Your task to perform on an android device: toggle notifications settings in the gmail app Image 0: 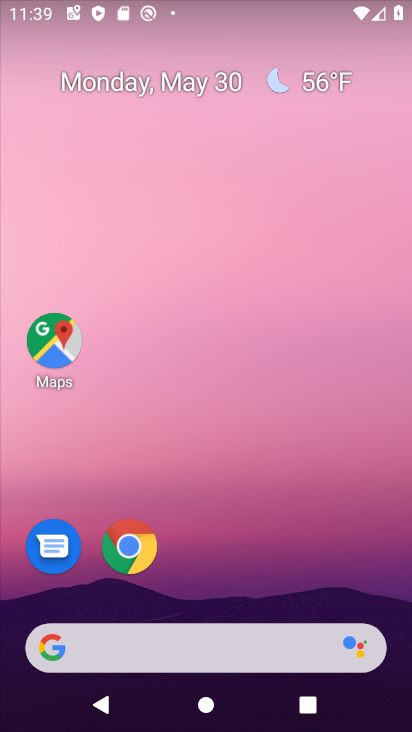
Step 0: drag from (266, 583) to (242, 67)
Your task to perform on an android device: toggle notifications settings in the gmail app Image 1: 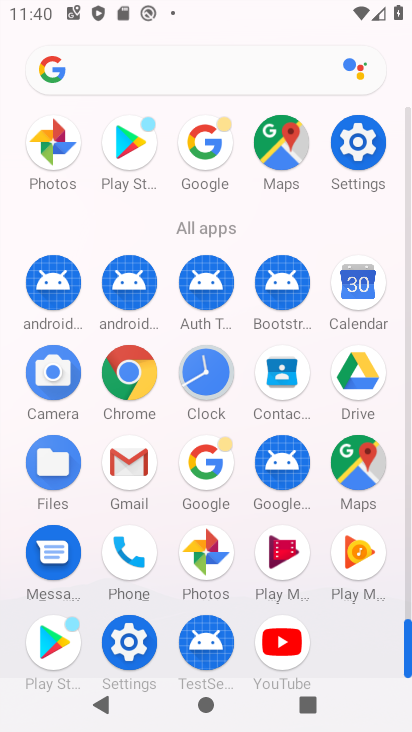
Step 1: click (129, 462)
Your task to perform on an android device: toggle notifications settings in the gmail app Image 2: 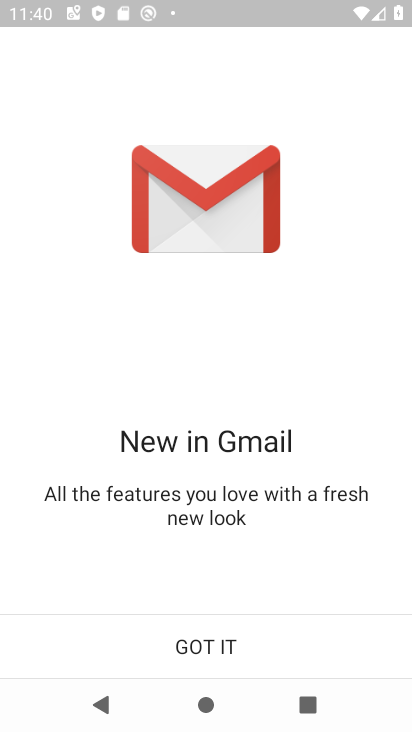
Step 2: click (209, 646)
Your task to perform on an android device: toggle notifications settings in the gmail app Image 3: 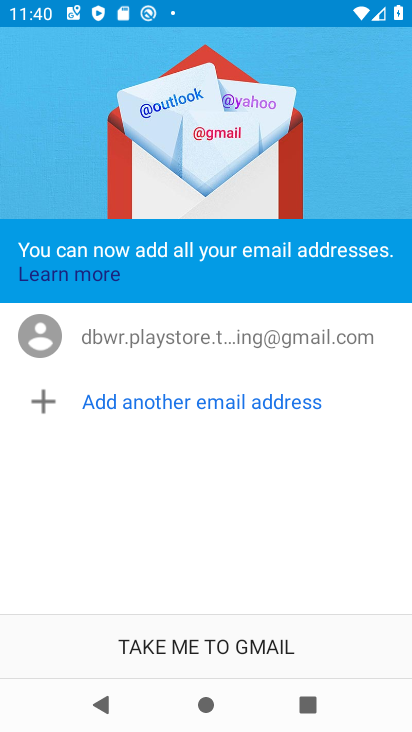
Step 3: click (209, 646)
Your task to perform on an android device: toggle notifications settings in the gmail app Image 4: 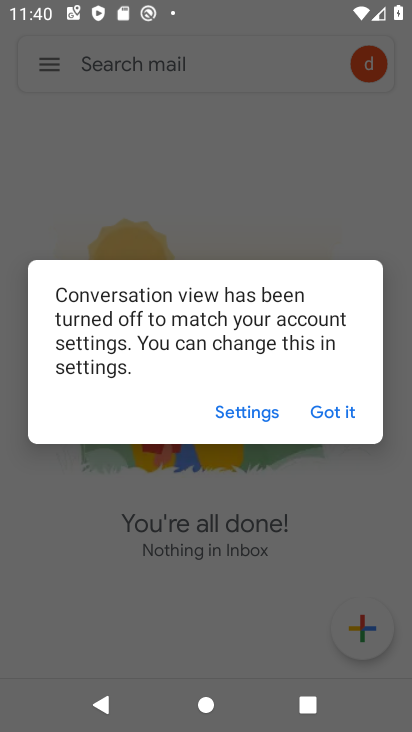
Step 4: click (328, 415)
Your task to perform on an android device: toggle notifications settings in the gmail app Image 5: 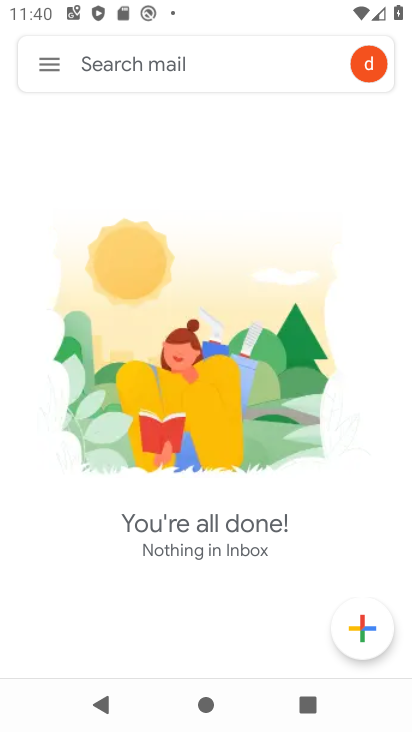
Step 5: click (52, 71)
Your task to perform on an android device: toggle notifications settings in the gmail app Image 6: 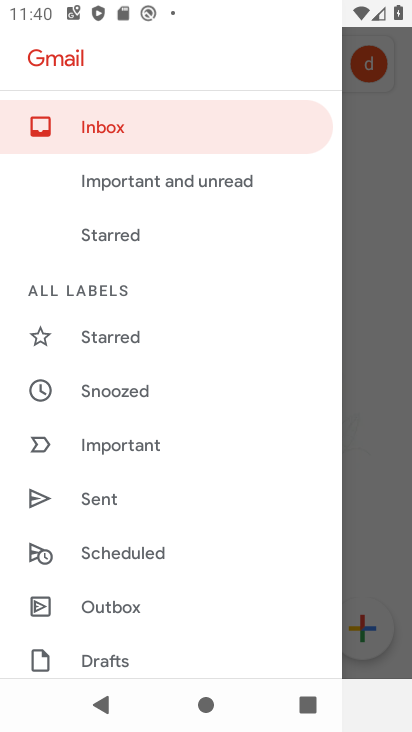
Step 6: drag from (128, 545) to (133, 414)
Your task to perform on an android device: toggle notifications settings in the gmail app Image 7: 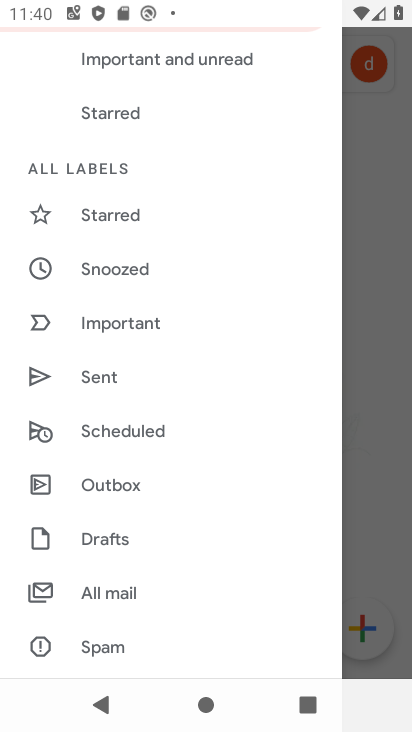
Step 7: drag from (114, 525) to (125, 444)
Your task to perform on an android device: toggle notifications settings in the gmail app Image 8: 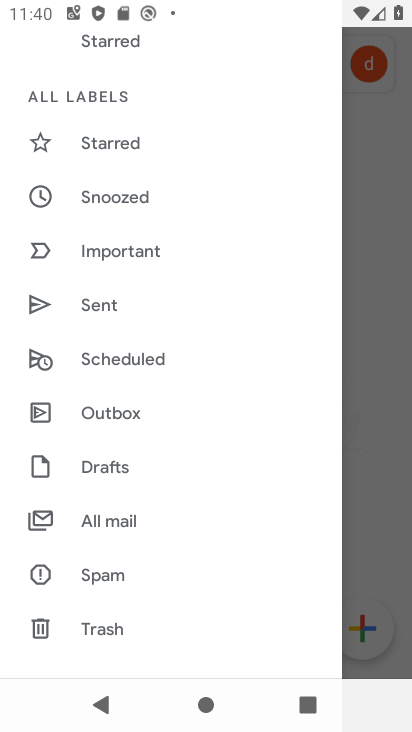
Step 8: drag from (116, 554) to (120, 453)
Your task to perform on an android device: toggle notifications settings in the gmail app Image 9: 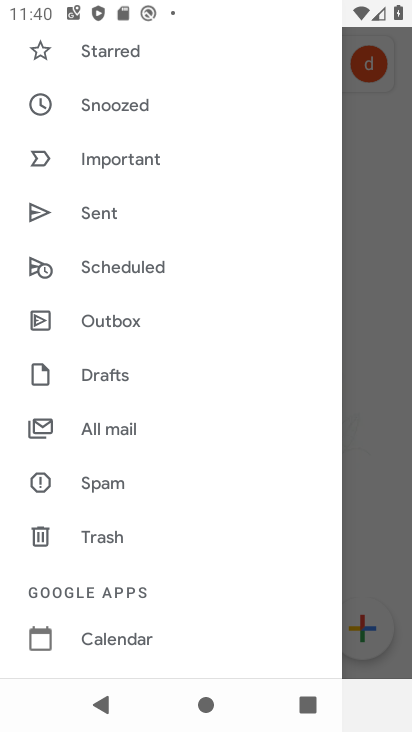
Step 9: drag from (118, 562) to (126, 457)
Your task to perform on an android device: toggle notifications settings in the gmail app Image 10: 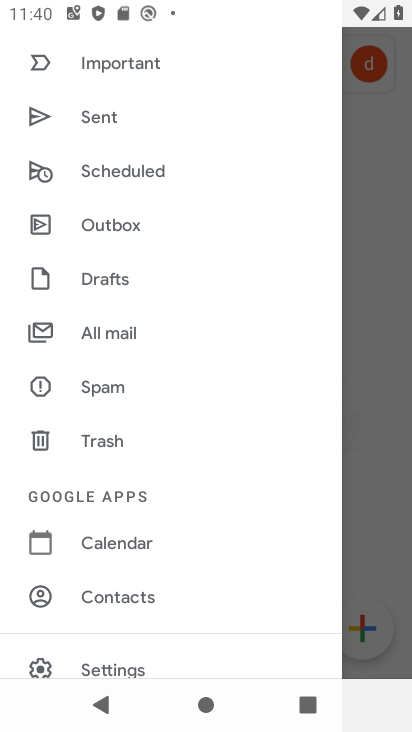
Step 10: drag from (101, 611) to (128, 506)
Your task to perform on an android device: toggle notifications settings in the gmail app Image 11: 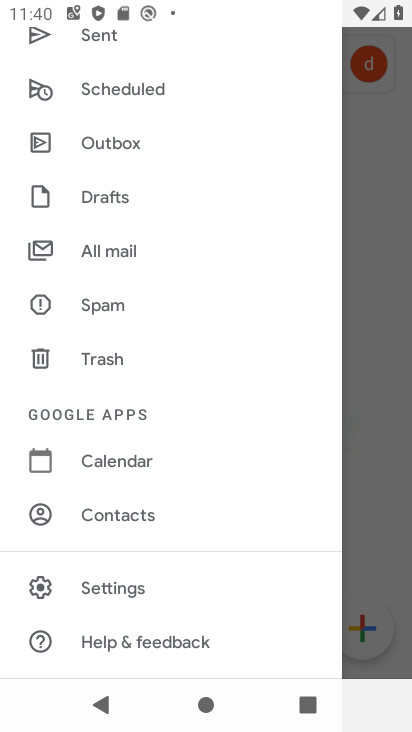
Step 11: click (106, 592)
Your task to perform on an android device: toggle notifications settings in the gmail app Image 12: 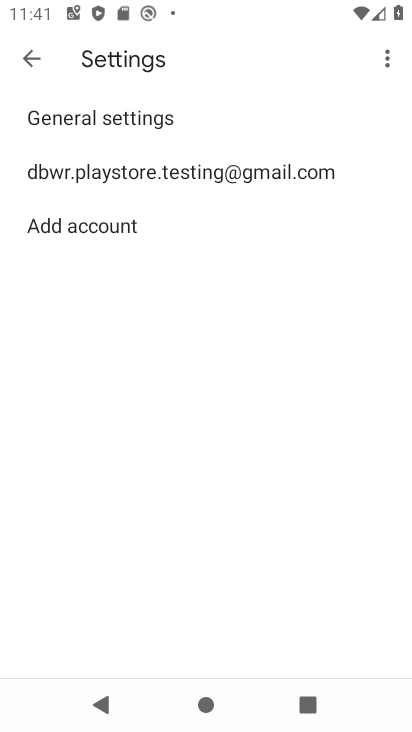
Step 12: click (260, 176)
Your task to perform on an android device: toggle notifications settings in the gmail app Image 13: 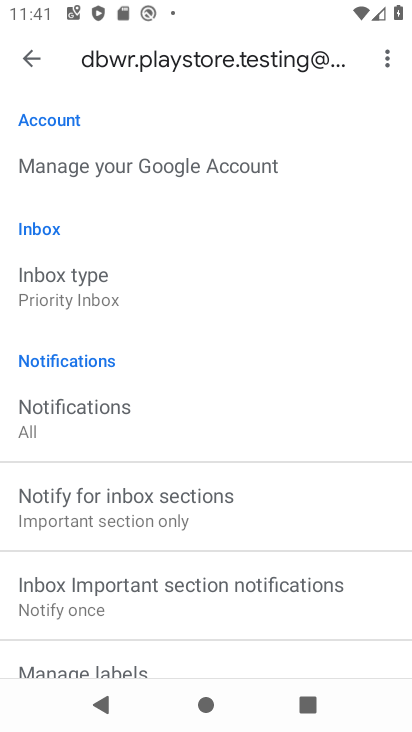
Step 13: drag from (142, 403) to (173, 327)
Your task to perform on an android device: toggle notifications settings in the gmail app Image 14: 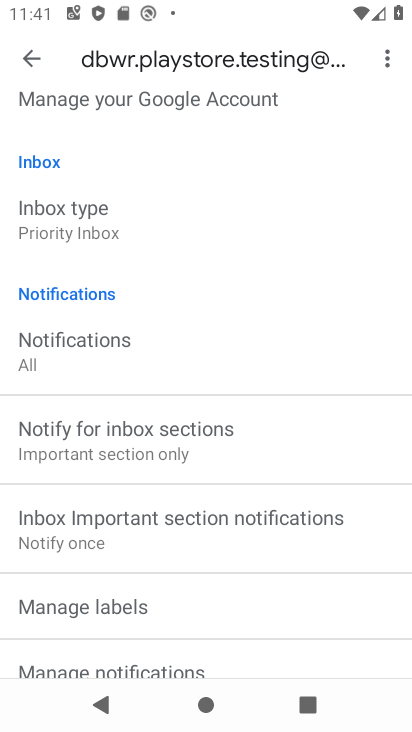
Step 14: drag from (145, 526) to (170, 405)
Your task to perform on an android device: toggle notifications settings in the gmail app Image 15: 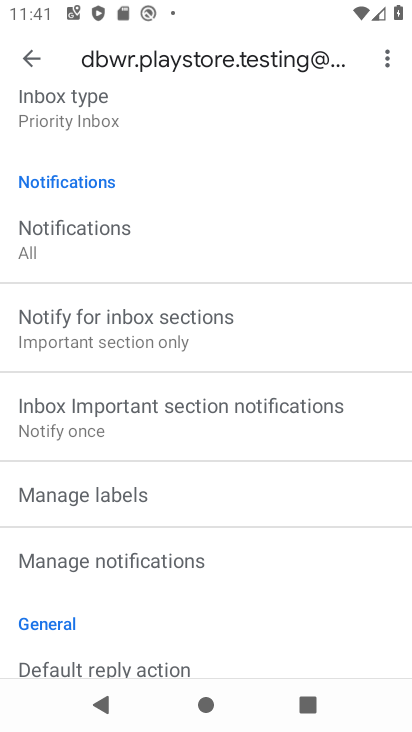
Step 15: click (122, 564)
Your task to perform on an android device: toggle notifications settings in the gmail app Image 16: 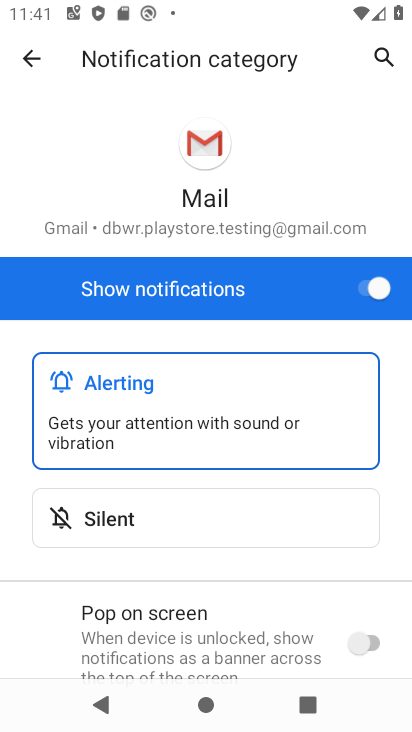
Step 16: click (372, 286)
Your task to perform on an android device: toggle notifications settings in the gmail app Image 17: 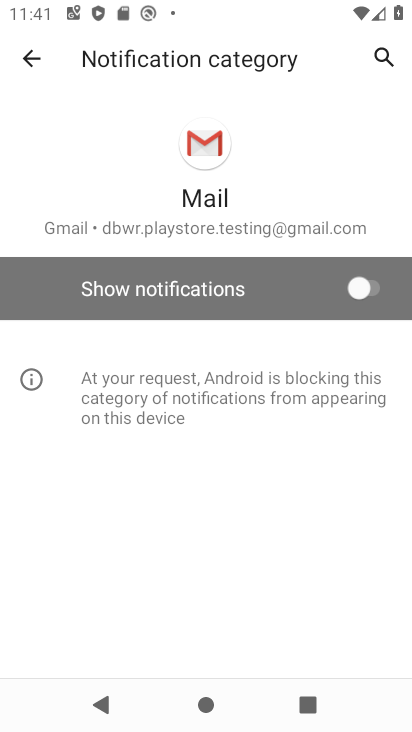
Step 17: task complete